Your task to perform on an android device: Search for vegetarian restaurants on Maps Image 0: 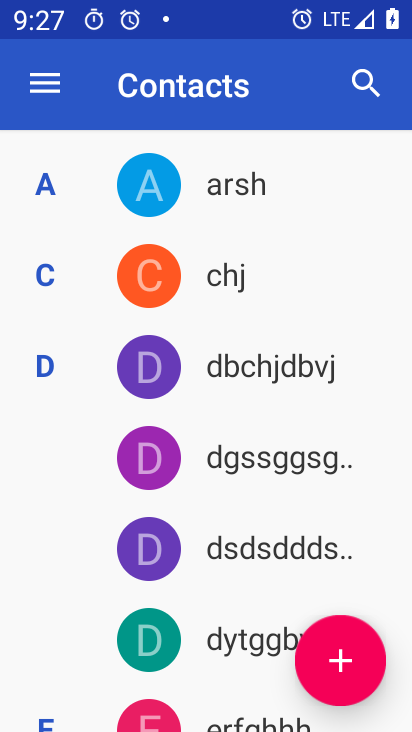
Step 0: drag from (178, 626) to (259, 44)
Your task to perform on an android device: Search for vegetarian restaurants on Maps Image 1: 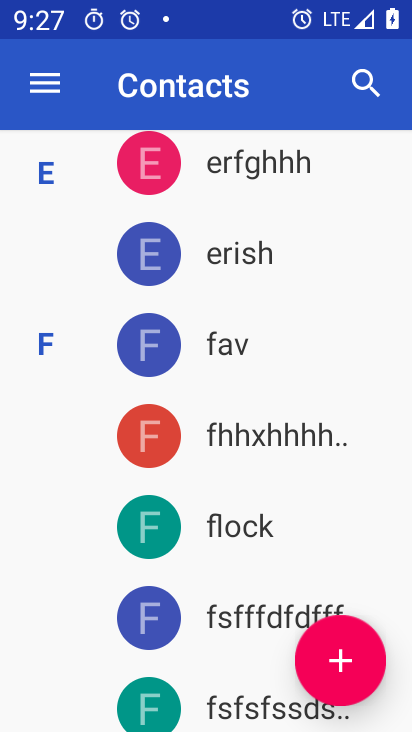
Step 1: press home button
Your task to perform on an android device: Search for vegetarian restaurants on Maps Image 2: 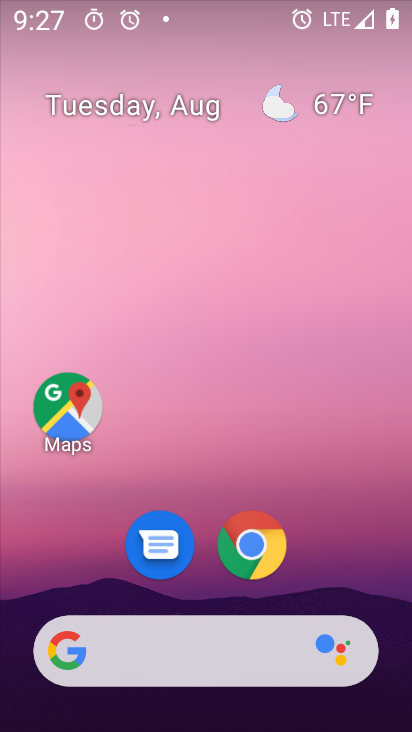
Step 2: click (74, 405)
Your task to perform on an android device: Search for vegetarian restaurants on Maps Image 3: 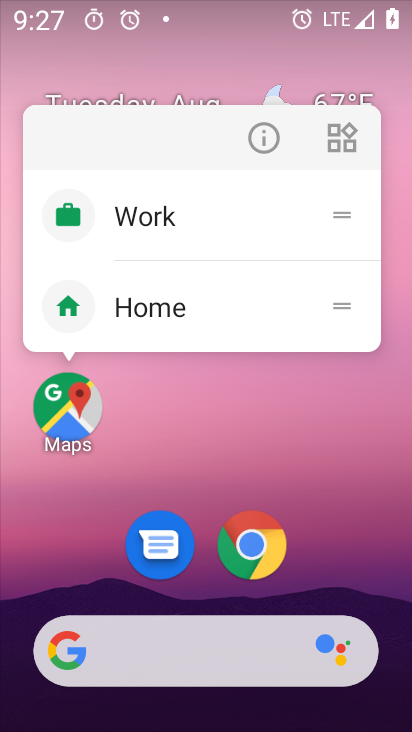
Step 3: click (77, 404)
Your task to perform on an android device: Search for vegetarian restaurants on Maps Image 4: 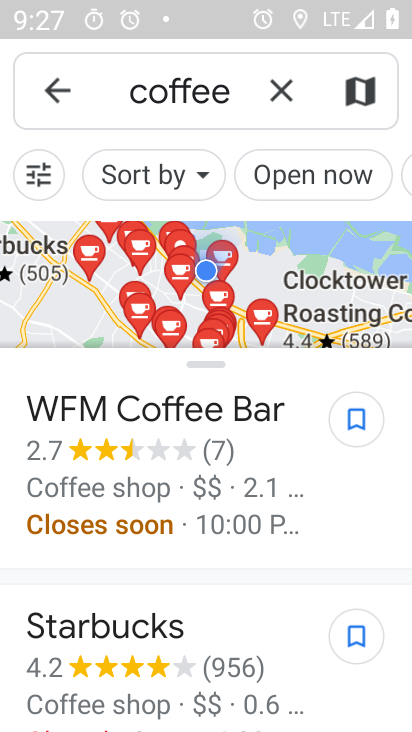
Step 4: click (281, 89)
Your task to perform on an android device: Search for vegetarian restaurants on Maps Image 5: 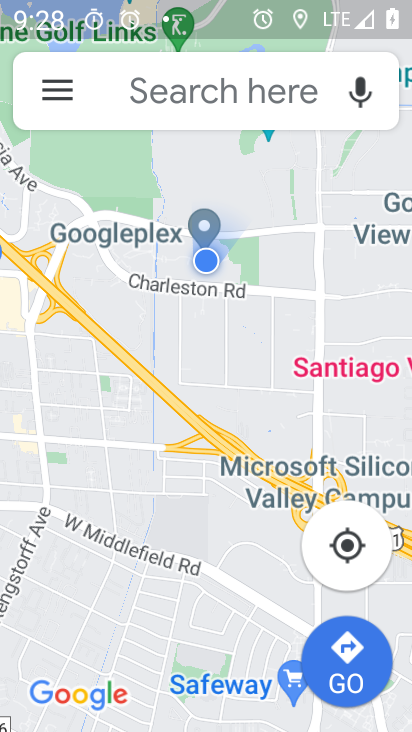
Step 5: click (196, 81)
Your task to perform on an android device: Search for vegetarian restaurants on Maps Image 6: 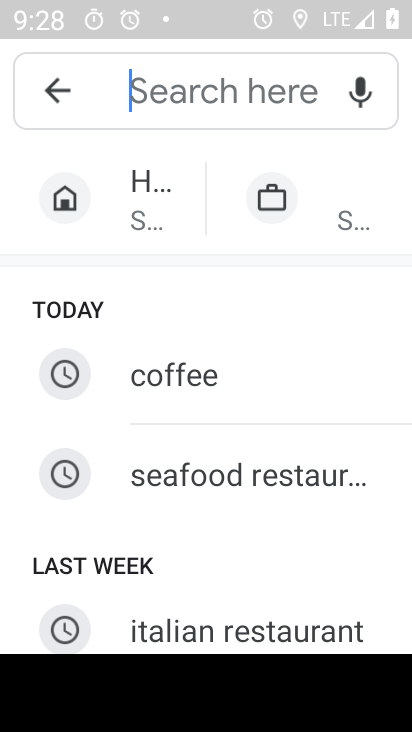
Step 6: drag from (231, 587) to (239, 145)
Your task to perform on an android device: Search for vegetarian restaurants on Maps Image 7: 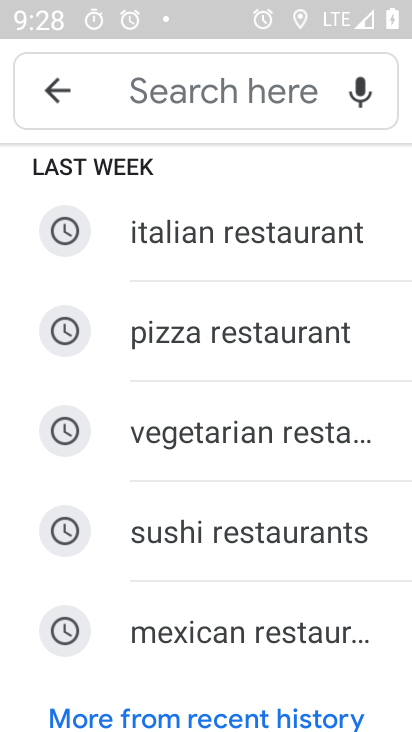
Step 7: click (206, 458)
Your task to perform on an android device: Search for vegetarian restaurants on Maps Image 8: 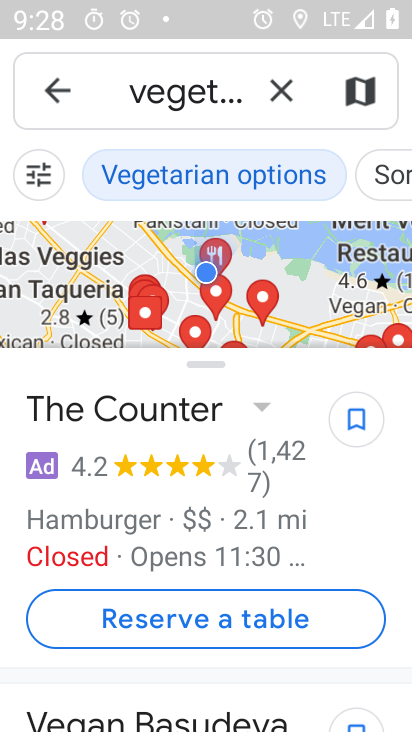
Step 8: task complete